Your task to perform on an android device: choose inbox layout in the gmail app Image 0: 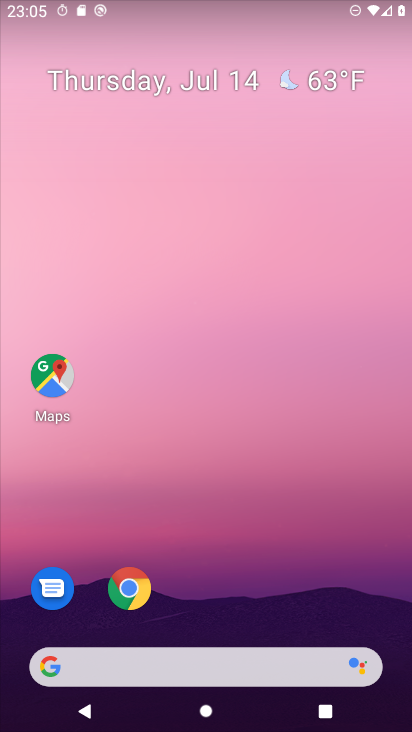
Step 0: drag from (269, 589) to (345, 82)
Your task to perform on an android device: choose inbox layout in the gmail app Image 1: 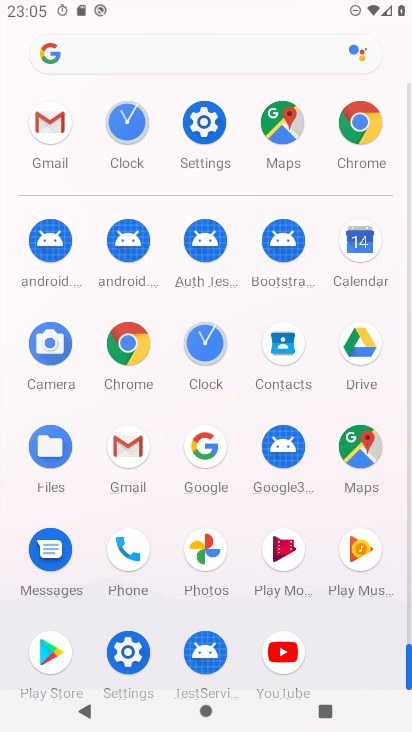
Step 1: click (132, 435)
Your task to perform on an android device: choose inbox layout in the gmail app Image 2: 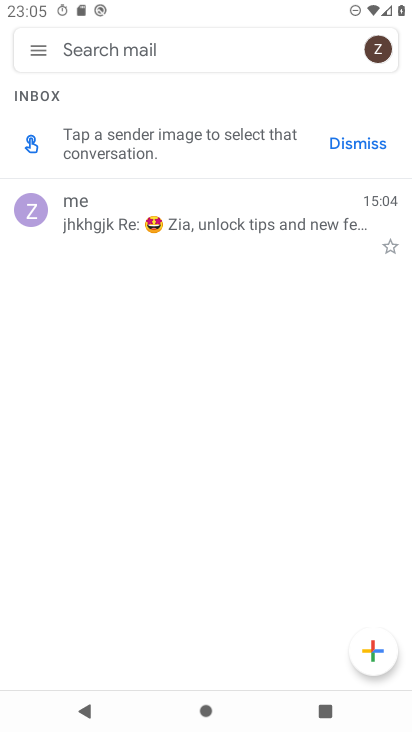
Step 2: click (40, 51)
Your task to perform on an android device: choose inbox layout in the gmail app Image 3: 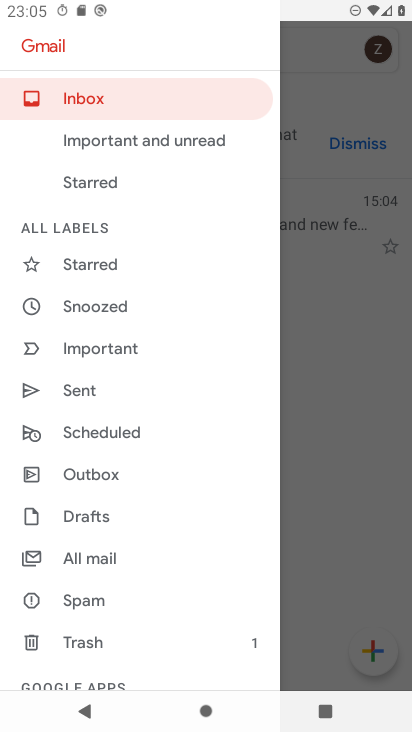
Step 3: drag from (179, 328) to (188, 278)
Your task to perform on an android device: choose inbox layout in the gmail app Image 4: 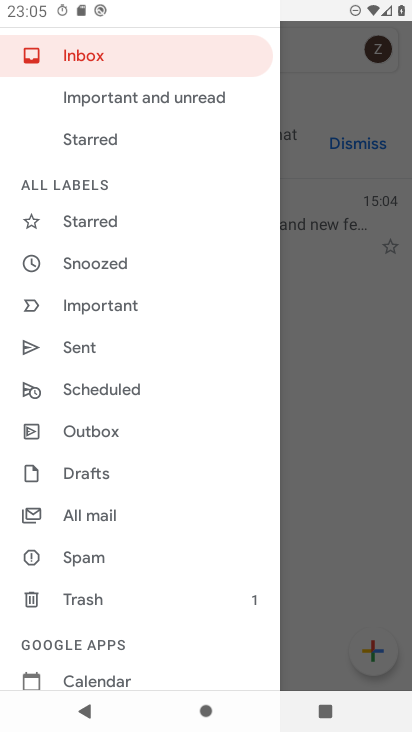
Step 4: drag from (201, 393) to (211, 257)
Your task to perform on an android device: choose inbox layout in the gmail app Image 5: 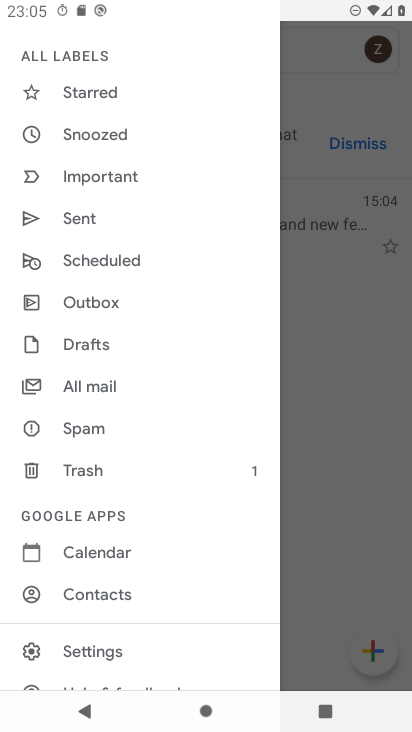
Step 5: drag from (206, 424) to (208, 312)
Your task to perform on an android device: choose inbox layout in the gmail app Image 6: 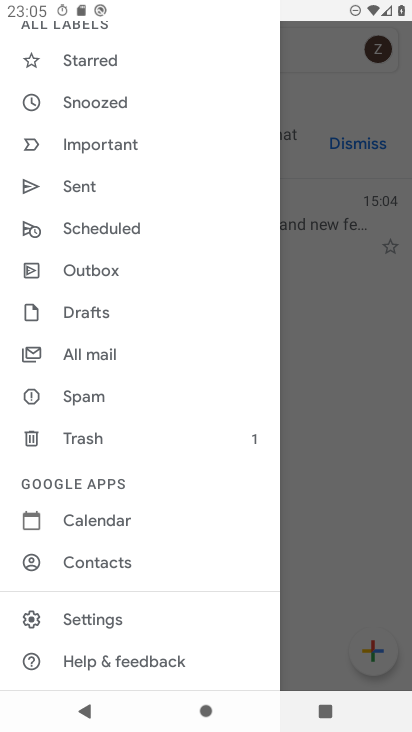
Step 6: click (129, 613)
Your task to perform on an android device: choose inbox layout in the gmail app Image 7: 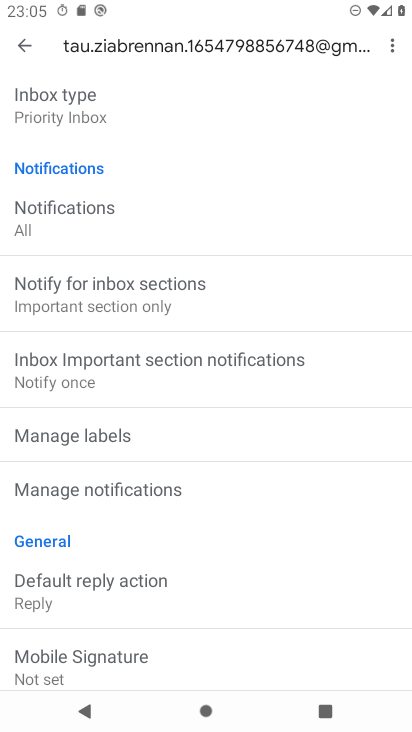
Step 7: drag from (344, 484) to (354, 389)
Your task to perform on an android device: choose inbox layout in the gmail app Image 8: 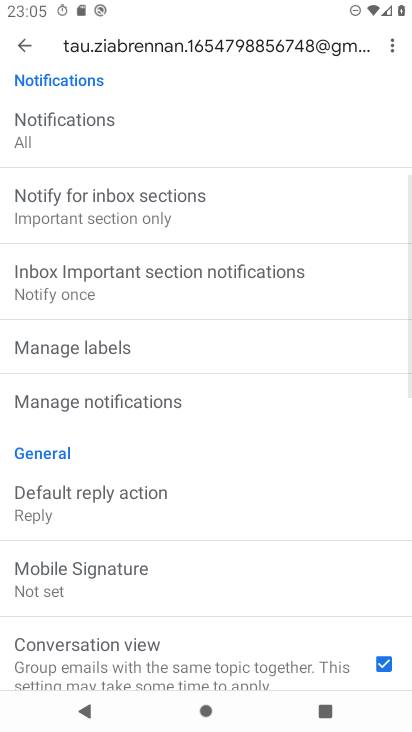
Step 8: drag from (349, 465) to (366, 374)
Your task to perform on an android device: choose inbox layout in the gmail app Image 9: 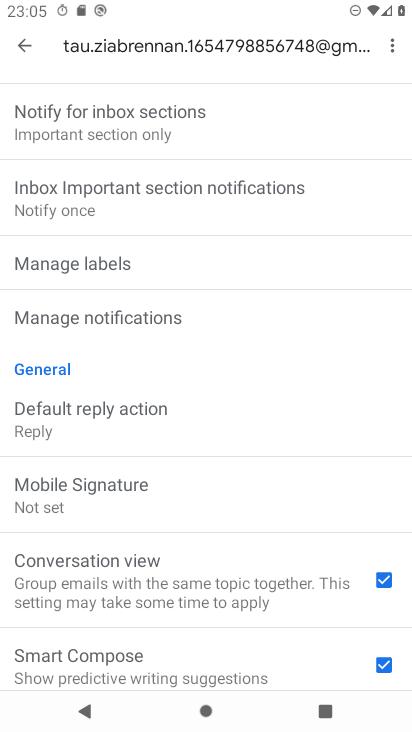
Step 9: drag from (353, 470) to (358, 398)
Your task to perform on an android device: choose inbox layout in the gmail app Image 10: 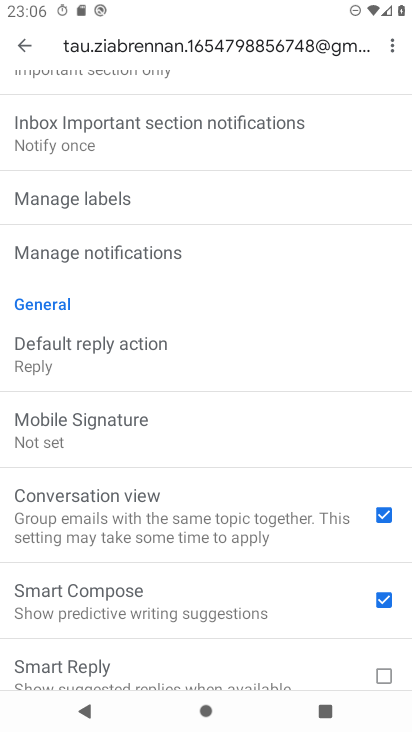
Step 10: drag from (351, 455) to (356, 383)
Your task to perform on an android device: choose inbox layout in the gmail app Image 11: 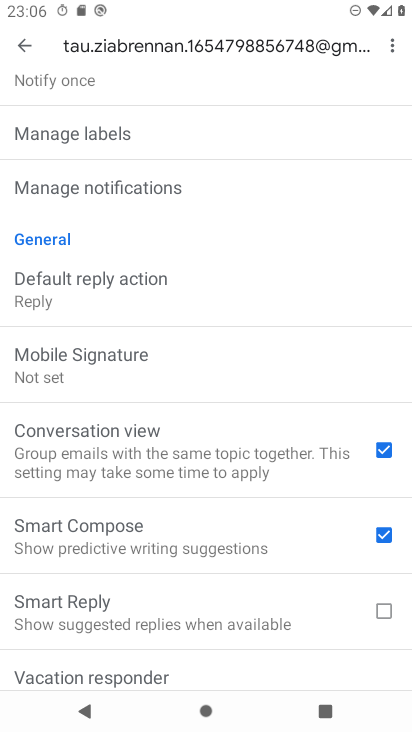
Step 11: drag from (316, 521) to (323, 405)
Your task to perform on an android device: choose inbox layout in the gmail app Image 12: 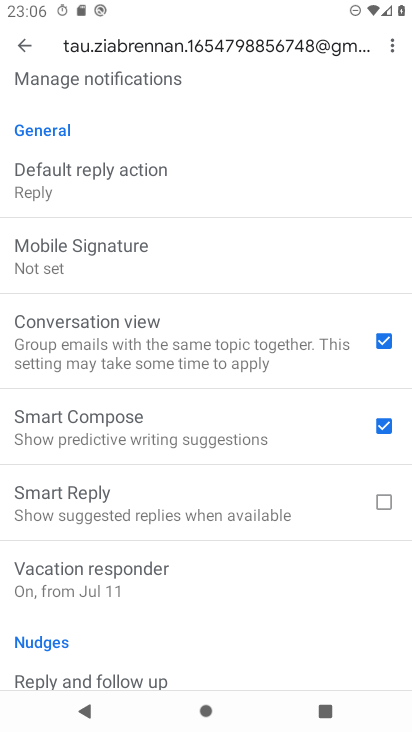
Step 12: drag from (325, 249) to (330, 361)
Your task to perform on an android device: choose inbox layout in the gmail app Image 13: 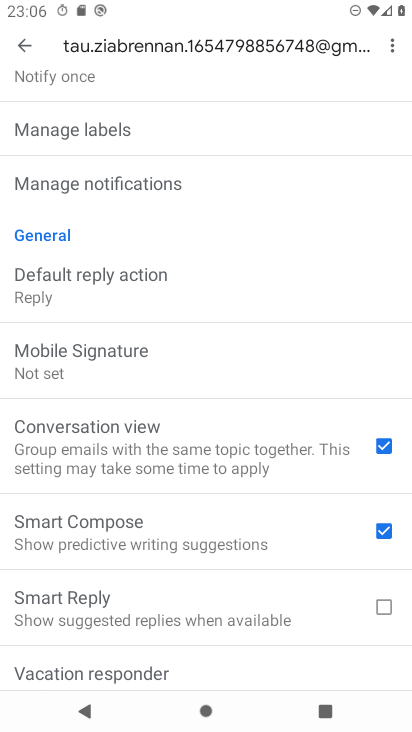
Step 13: drag from (329, 244) to (321, 422)
Your task to perform on an android device: choose inbox layout in the gmail app Image 14: 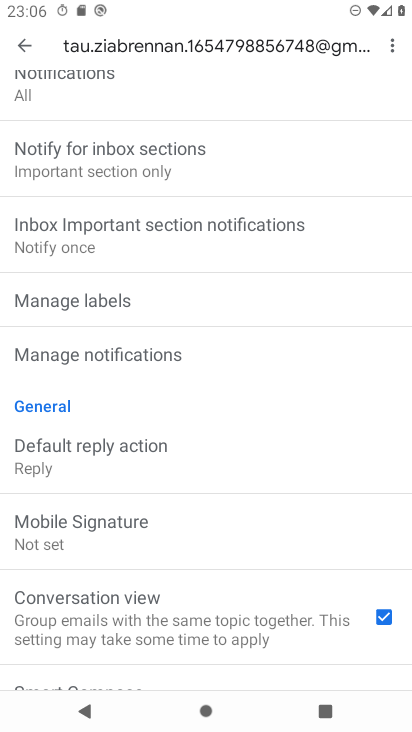
Step 14: drag from (320, 277) to (316, 430)
Your task to perform on an android device: choose inbox layout in the gmail app Image 15: 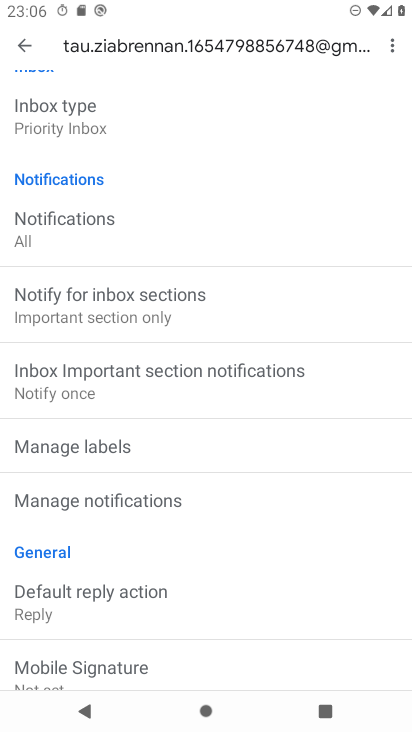
Step 15: drag from (318, 266) to (321, 388)
Your task to perform on an android device: choose inbox layout in the gmail app Image 16: 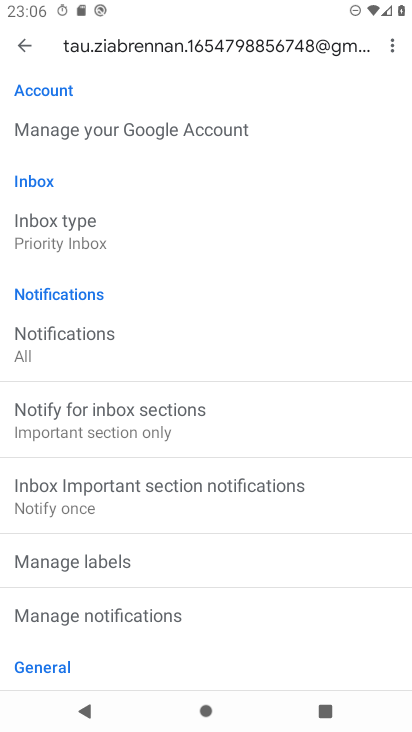
Step 16: drag from (324, 244) to (318, 368)
Your task to perform on an android device: choose inbox layout in the gmail app Image 17: 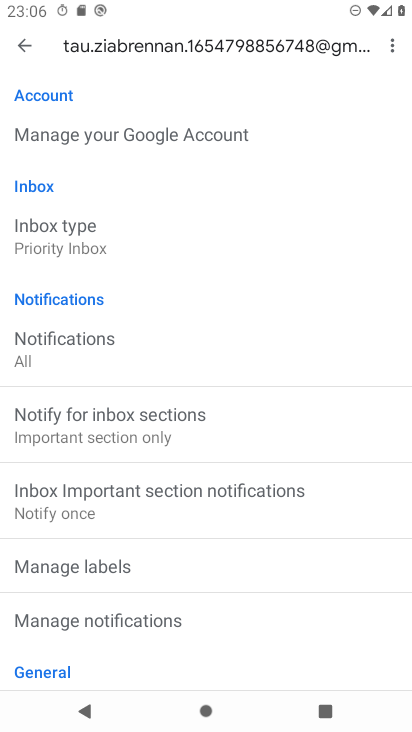
Step 17: click (77, 231)
Your task to perform on an android device: choose inbox layout in the gmail app Image 18: 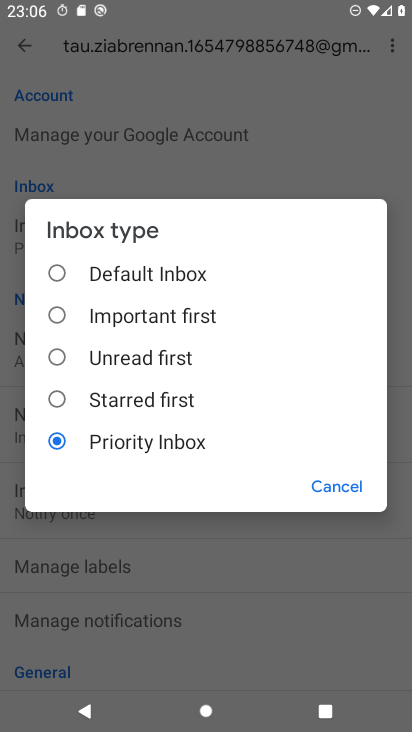
Step 18: click (158, 274)
Your task to perform on an android device: choose inbox layout in the gmail app Image 19: 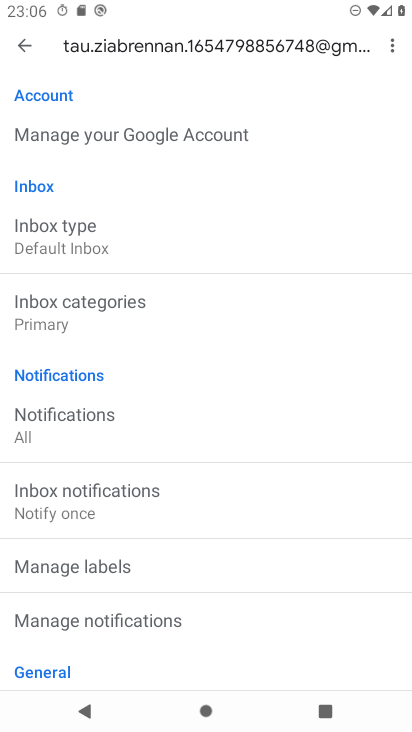
Step 19: task complete